Your task to perform on an android device: Open battery settings Image 0: 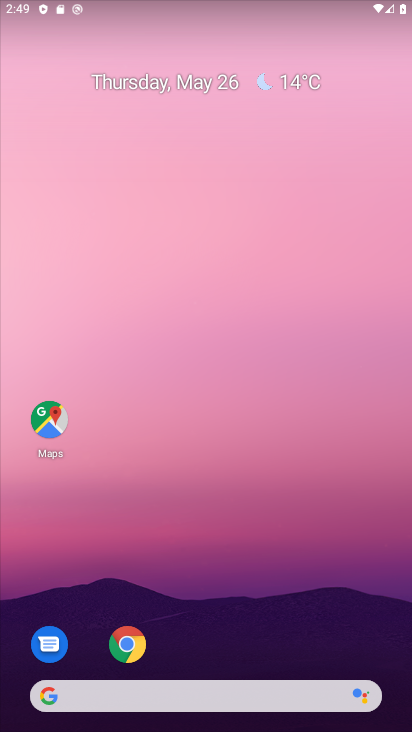
Step 0: drag from (277, 580) to (271, 222)
Your task to perform on an android device: Open battery settings Image 1: 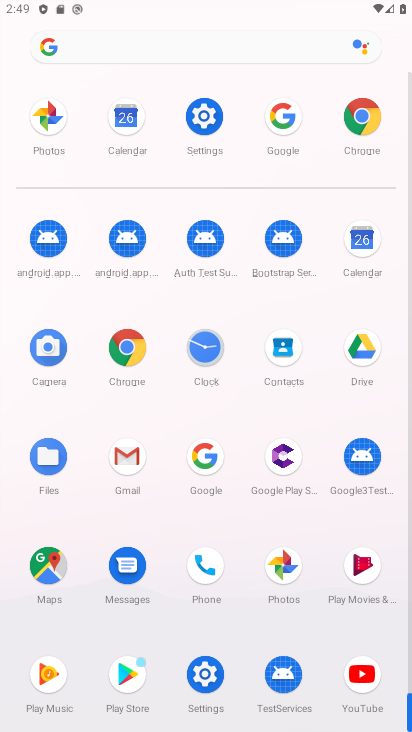
Step 1: click (201, 686)
Your task to perform on an android device: Open battery settings Image 2: 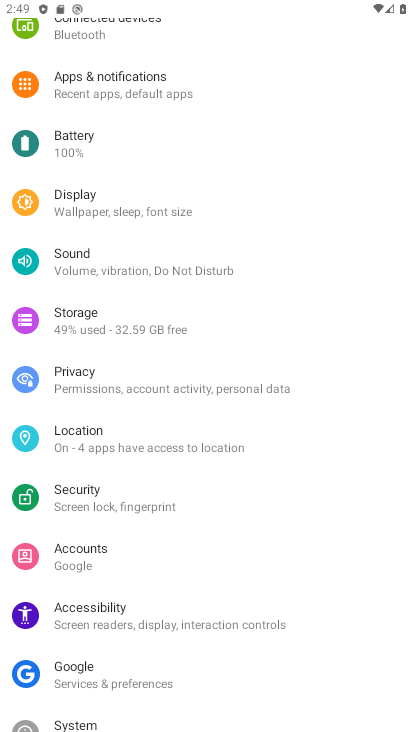
Step 2: click (94, 133)
Your task to perform on an android device: Open battery settings Image 3: 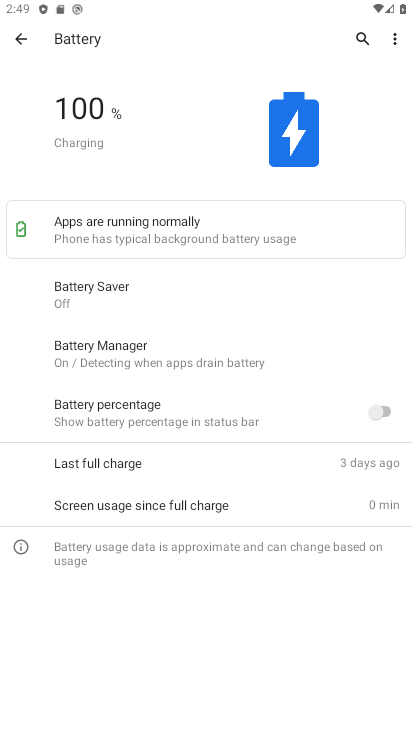
Step 3: task complete